Your task to perform on an android device: Open Chrome and go to the settings page Image 0: 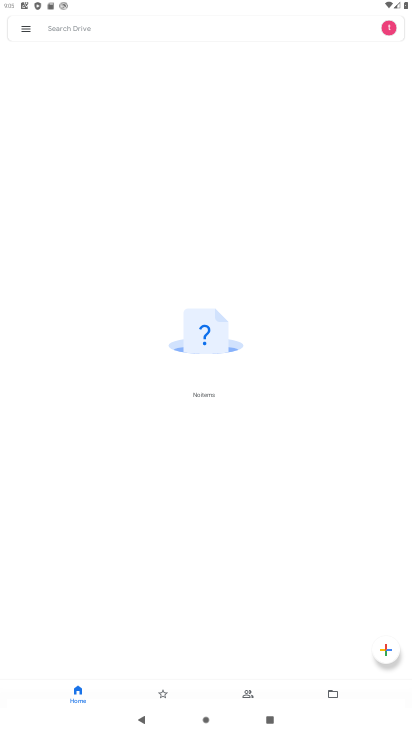
Step 0: press home button
Your task to perform on an android device: Open Chrome and go to the settings page Image 1: 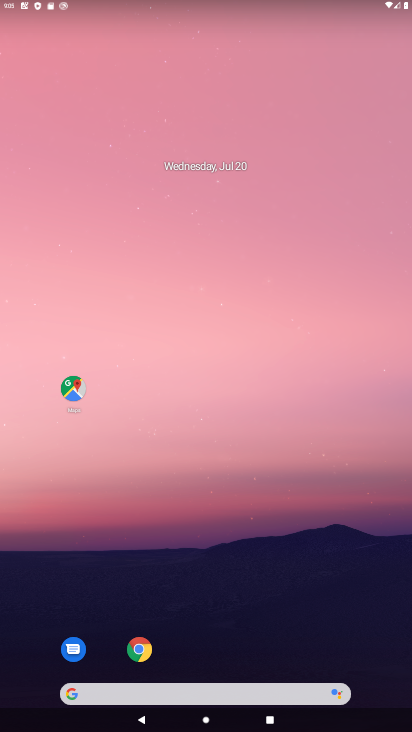
Step 1: click (144, 648)
Your task to perform on an android device: Open Chrome and go to the settings page Image 2: 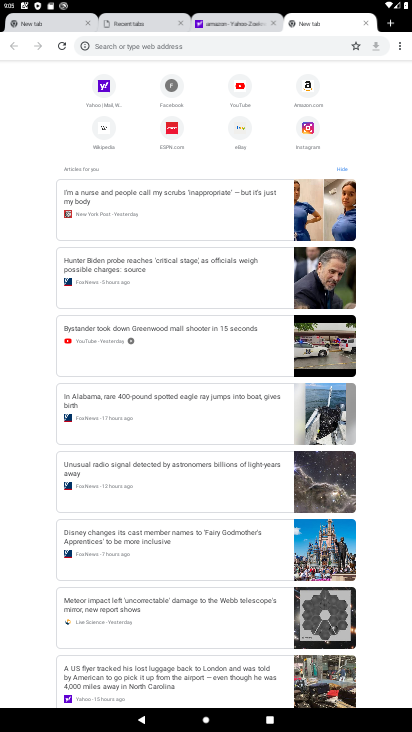
Step 2: click (295, 49)
Your task to perform on an android device: Open Chrome and go to the settings page Image 3: 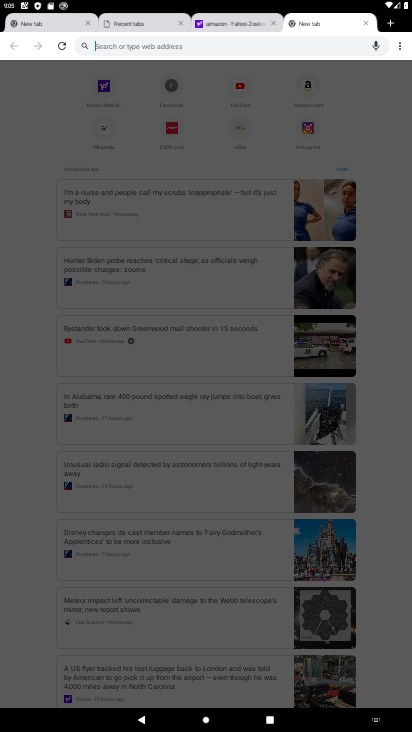
Step 3: click (400, 47)
Your task to perform on an android device: Open Chrome and go to the settings page Image 4: 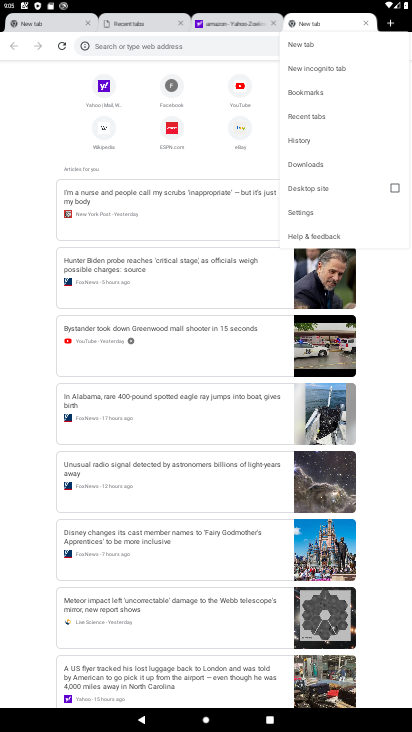
Step 4: click (306, 207)
Your task to perform on an android device: Open Chrome and go to the settings page Image 5: 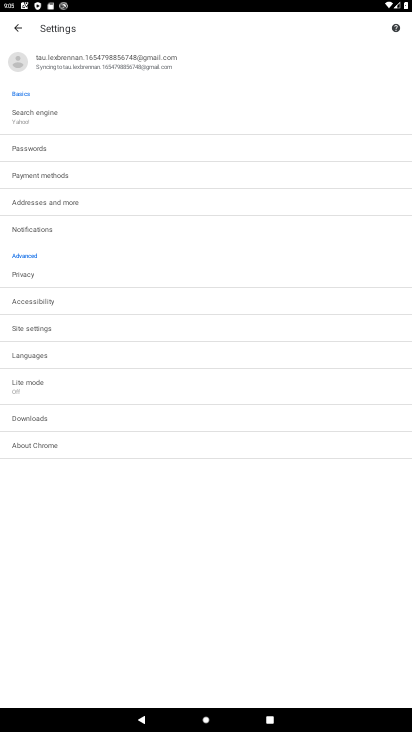
Step 5: task complete